Your task to perform on an android device: Go to calendar. Show me events next week Image 0: 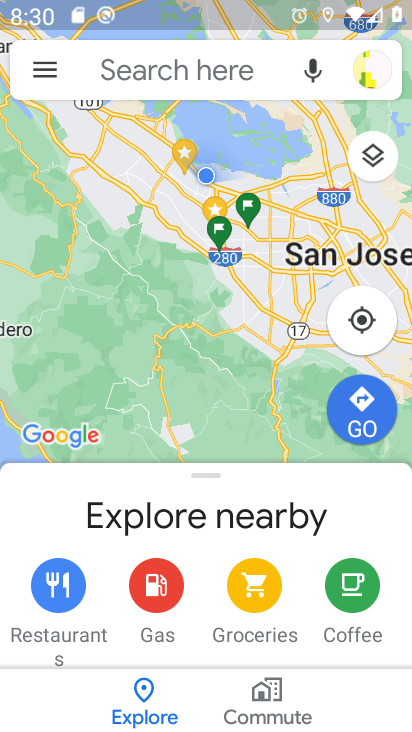
Step 0: press back button
Your task to perform on an android device: Go to calendar. Show me events next week Image 1: 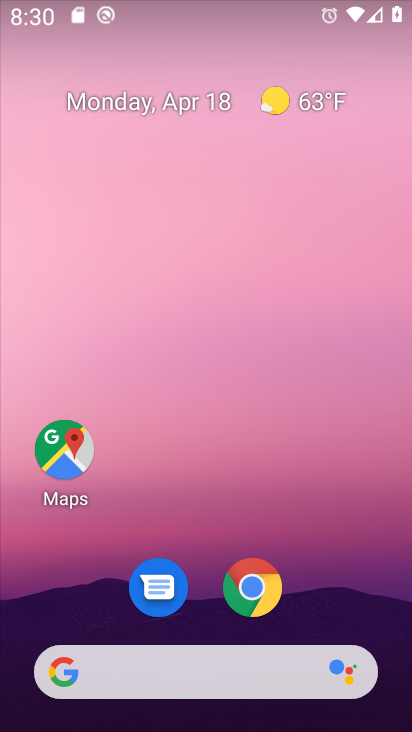
Step 1: drag from (345, 587) to (325, 10)
Your task to perform on an android device: Go to calendar. Show me events next week Image 2: 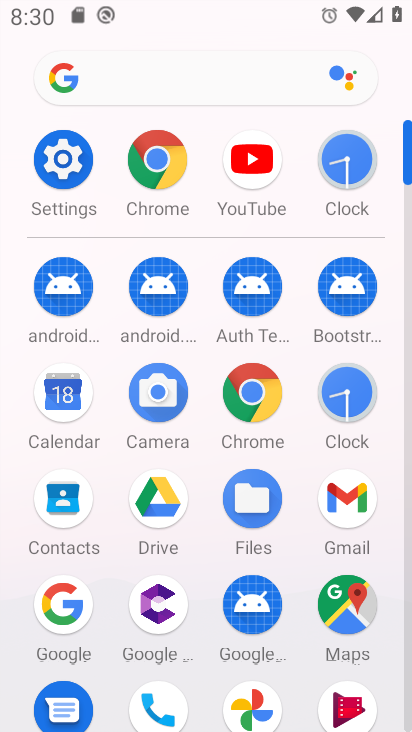
Step 2: click (79, 414)
Your task to perform on an android device: Go to calendar. Show me events next week Image 3: 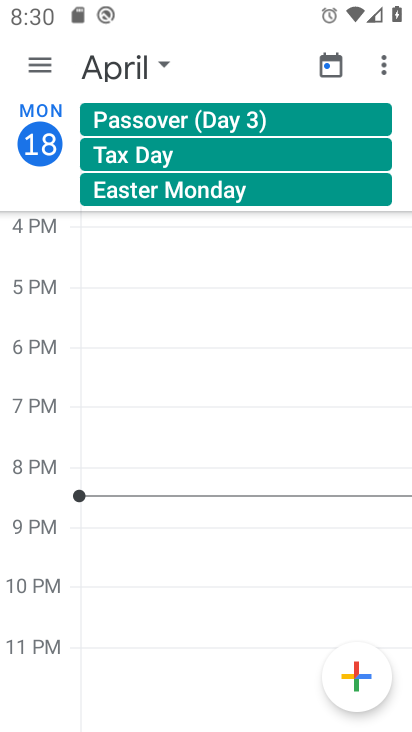
Step 3: click (37, 139)
Your task to perform on an android device: Go to calendar. Show me events next week Image 4: 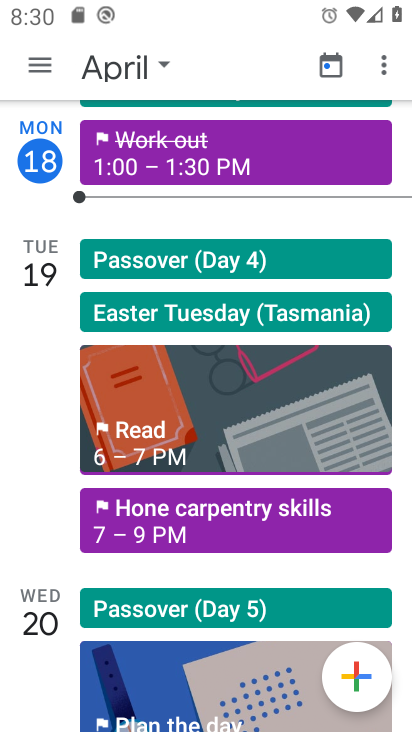
Step 4: drag from (31, 500) to (67, 148)
Your task to perform on an android device: Go to calendar. Show me events next week Image 5: 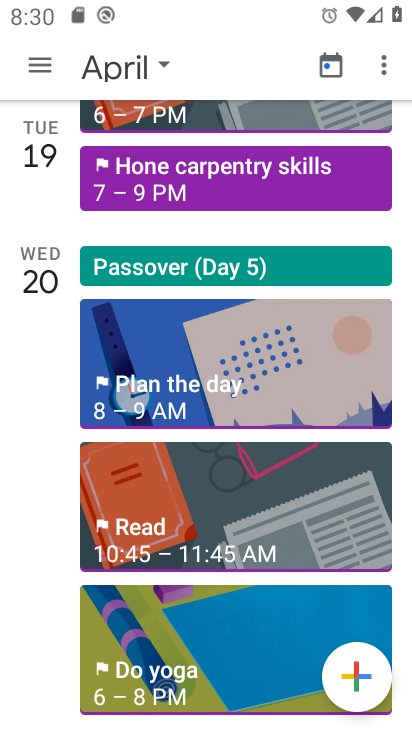
Step 5: drag from (22, 580) to (109, 95)
Your task to perform on an android device: Go to calendar. Show me events next week Image 6: 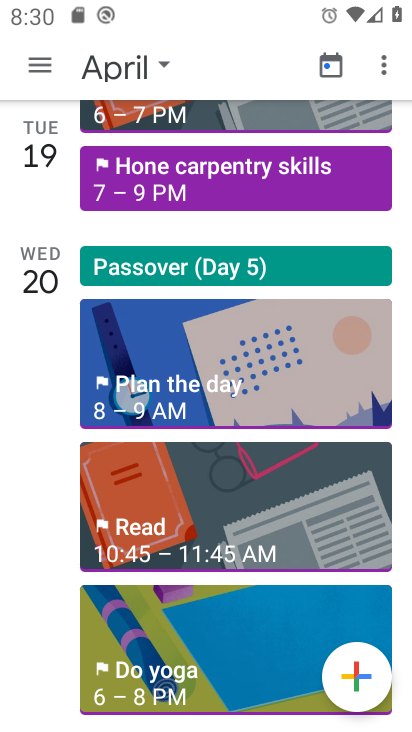
Step 6: drag from (41, 522) to (98, 150)
Your task to perform on an android device: Go to calendar. Show me events next week Image 7: 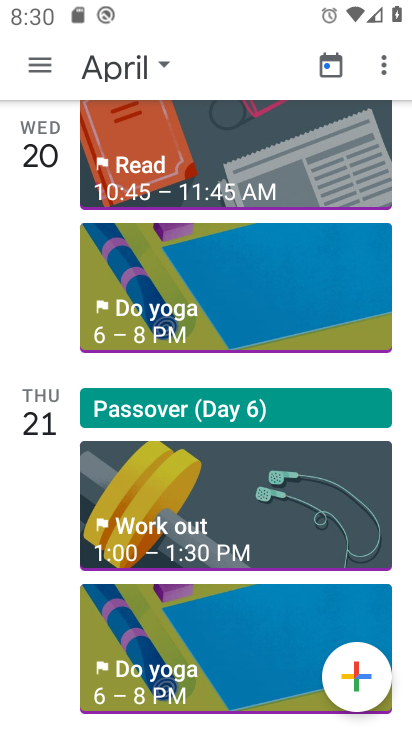
Step 7: drag from (37, 622) to (62, 17)
Your task to perform on an android device: Go to calendar. Show me events next week Image 8: 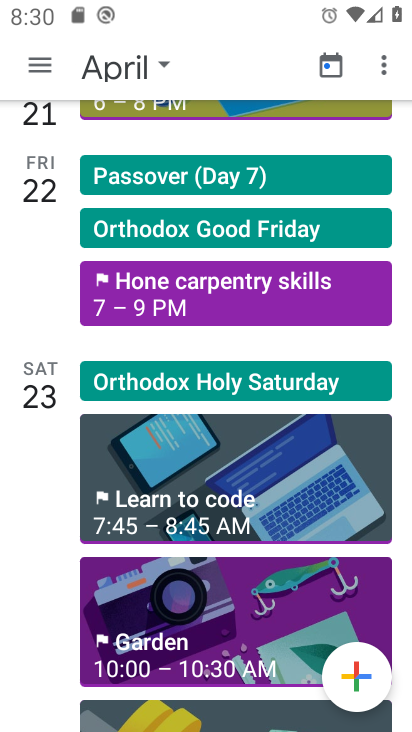
Step 8: drag from (26, 574) to (79, 118)
Your task to perform on an android device: Go to calendar. Show me events next week Image 9: 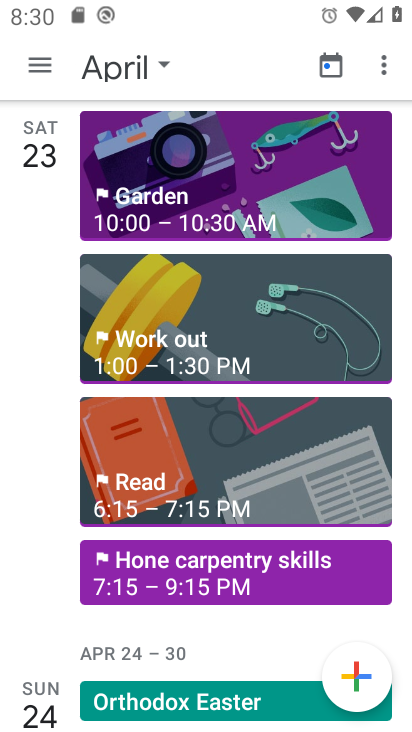
Step 9: drag from (52, 592) to (76, 173)
Your task to perform on an android device: Go to calendar. Show me events next week Image 10: 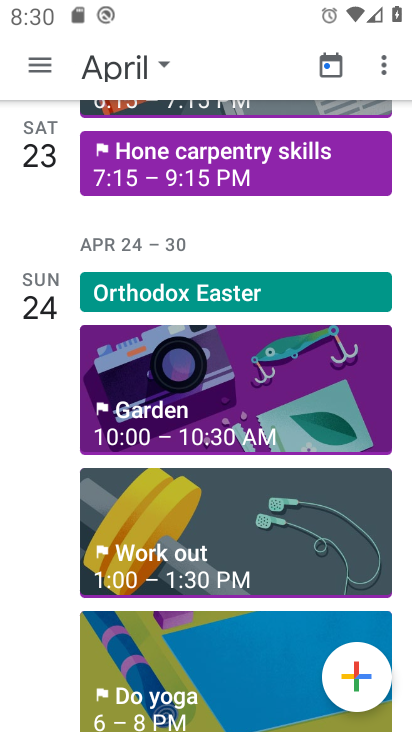
Step 10: drag from (44, 521) to (84, 183)
Your task to perform on an android device: Go to calendar. Show me events next week Image 11: 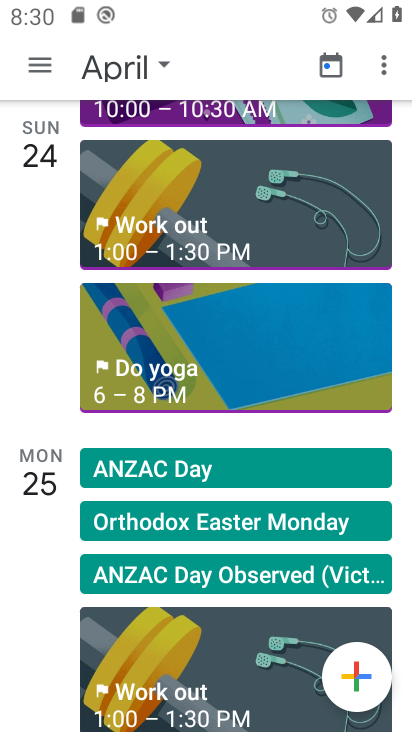
Step 11: click (37, 490)
Your task to perform on an android device: Go to calendar. Show me events next week Image 12: 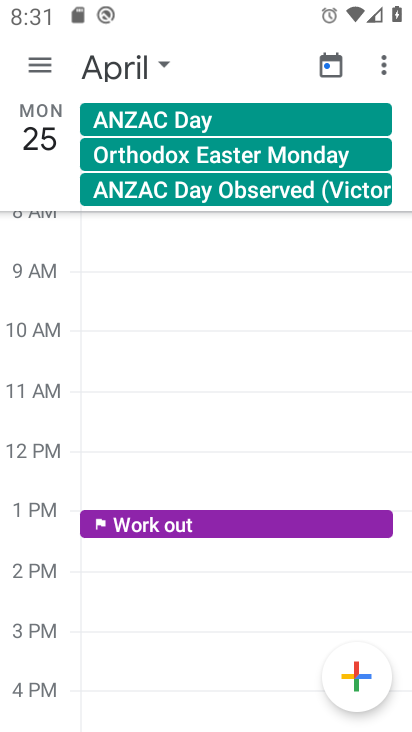
Step 12: task complete